Your task to perform on an android device: Open display settings Image 0: 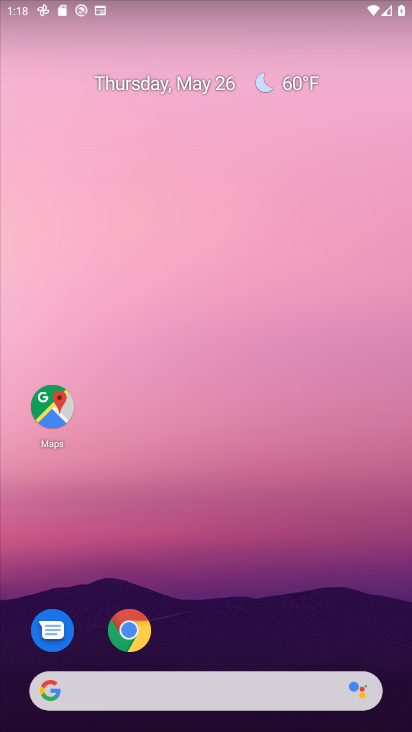
Step 0: drag from (311, 615) to (301, 7)
Your task to perform on an android device: Open display settings Image 1: 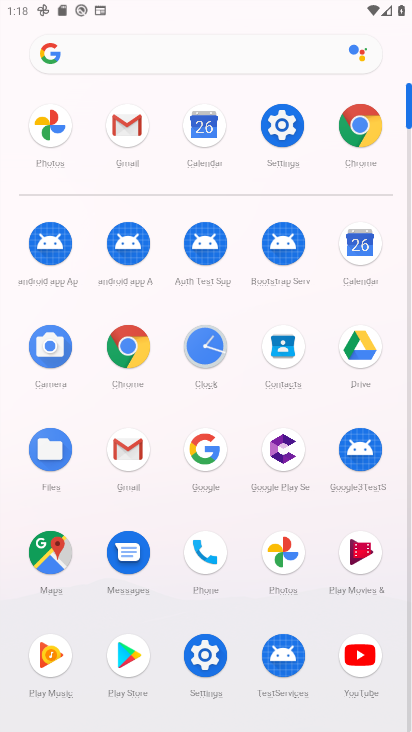
Step 1: click (282, 112)
Your task to perform on an android device: Open display settings Image 2: 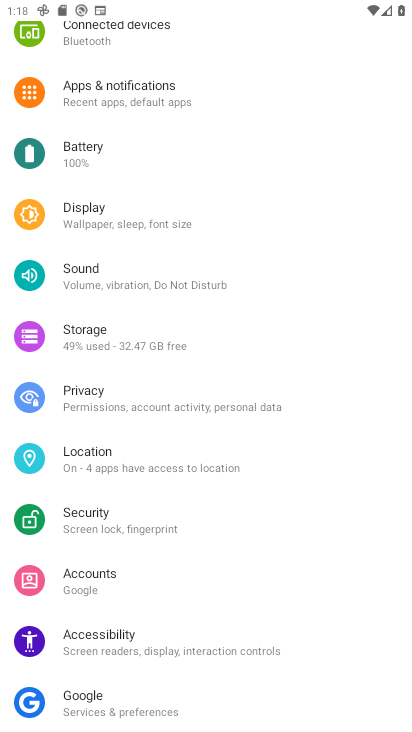
Step 2: click (146, 215)
Your task to perform on an android device: Open display settings Image 3: 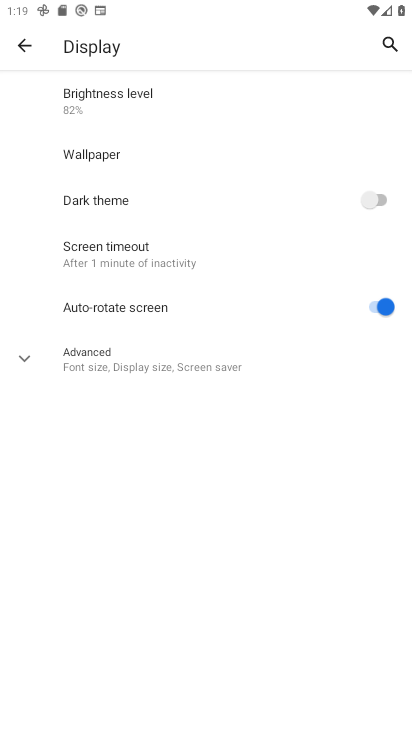
Step 3: task complete